Your task to perform on an android device: Go to calendar. Show me events next week Image 0: 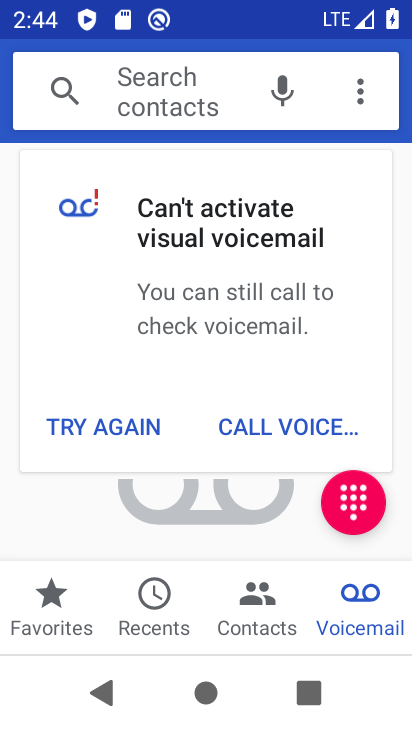
Step 0: drag from (294, 536) to (408, 426)
Your task to perform on an android device: Go to calendar. Show me events next week Image 1: 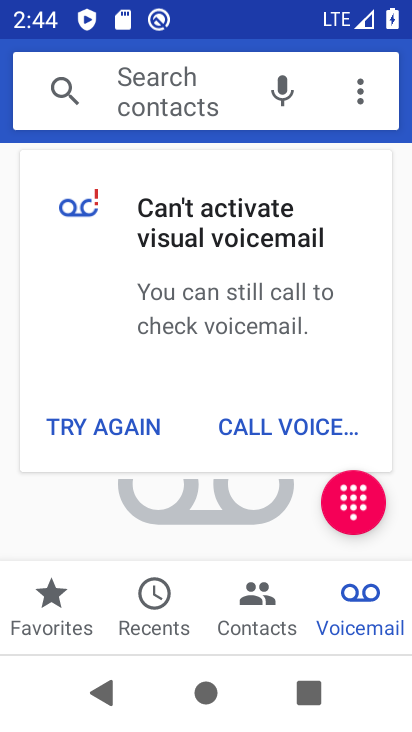
Step 1: press home button
Your task to perform on an android device: Go to calendar. Show me events next week Image 2: 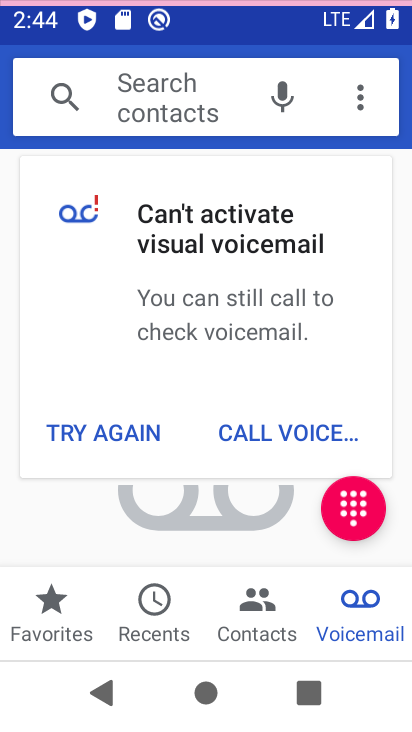
Step 2: click (407, 404)
Your task to perform on an android device: Go to calendar. Show me events next week Image 3: 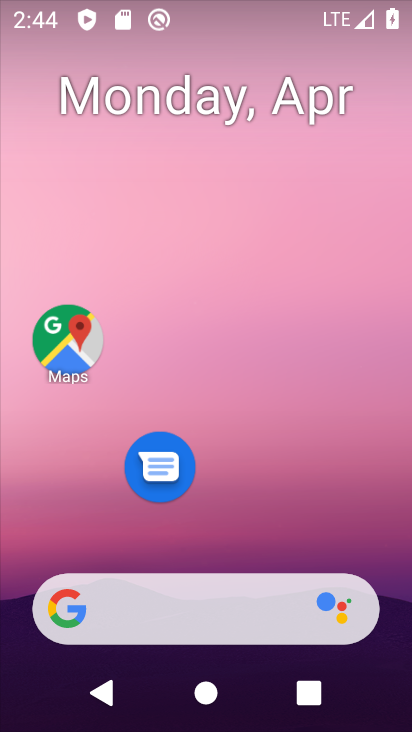
Step 3: drag from (238, 527) to (318, 122)
Your task to perform on an android device: Go to calendar. Show me events next week Image 4: 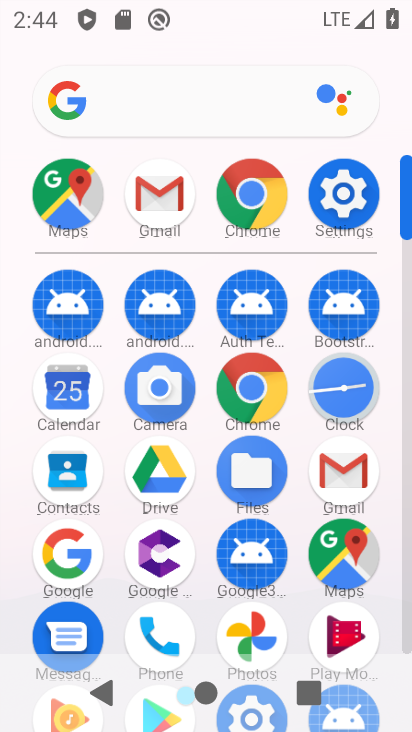
Step 4: click (53, 412)
Your task to perform on an android device: Go to calendar. Show me events next week Image 5: 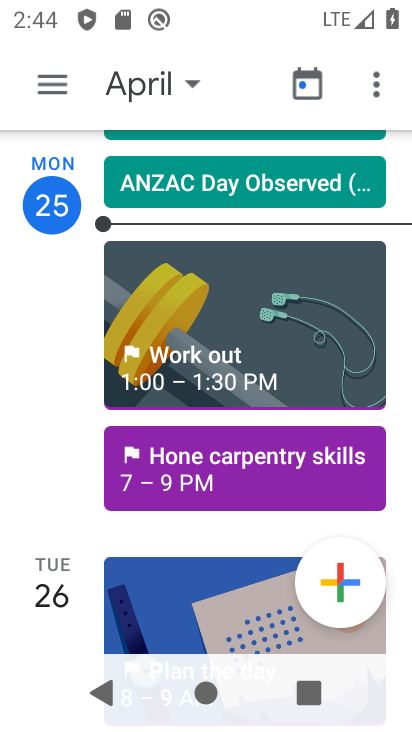
Step 5: click (149, 88)
Your task to perform on an android device: Go to calendar. Show me events next week Image 6: 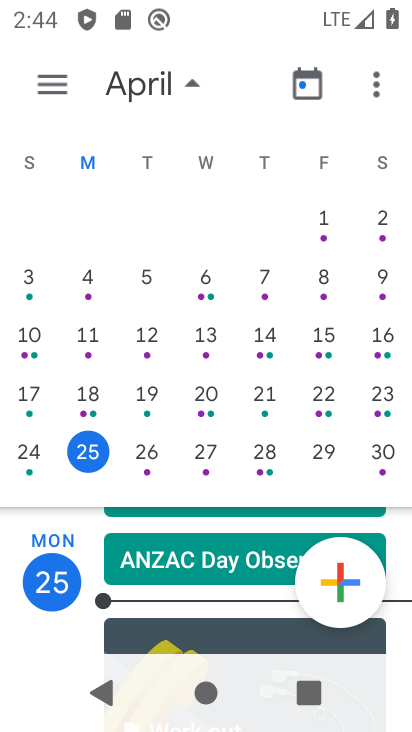
Step 6: drag from (396, 358) to (0, 321)
Your task to perform on an android device: Go to calendar. Show me events next week Image 7: 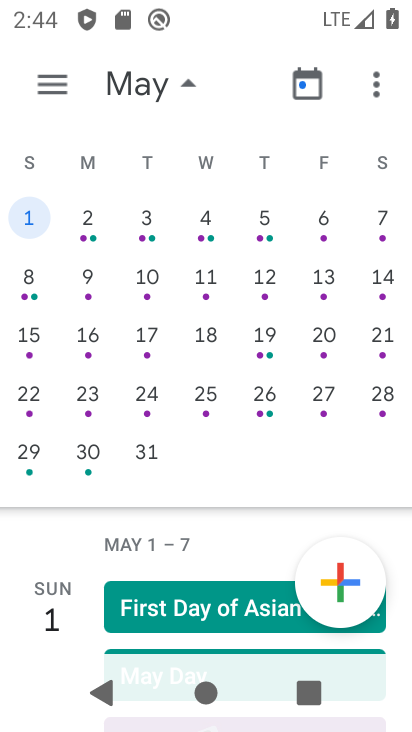
Step 7: click (80, 233)
Your task to perform on an android device: Go to calendar. Show me events next week Image 8: 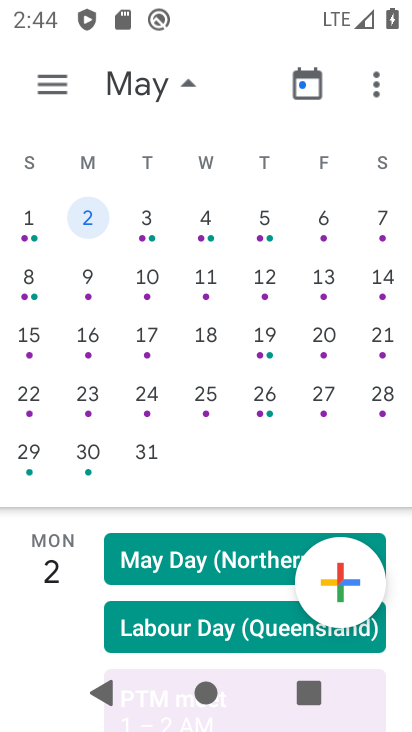
Step 8: click (135, 212)
Your task to perform on an android device: Go to calendar. Show me events next week Image 9: 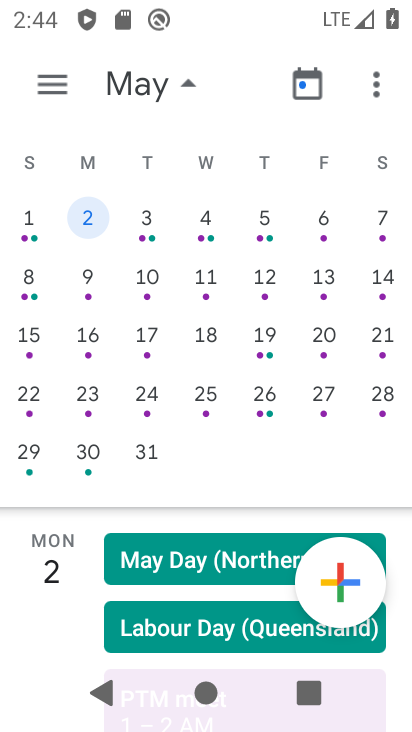
Step 9: click (163, 231)
Your task to perform on an android device: Go to calendar. Show me events next week Image 10: 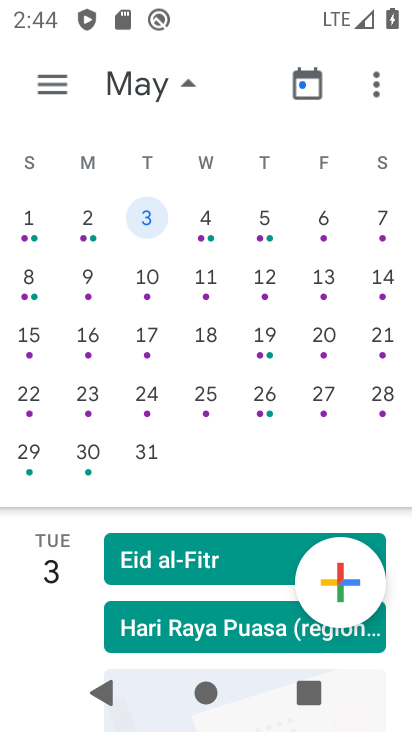
Step 10: click (213, 240)
Your task to perform on an android device: Go to calendar. Show me events next week Image 11: 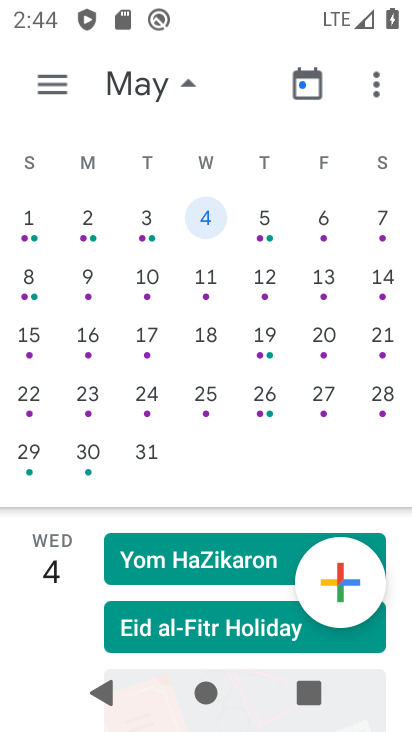
Step 11: click (271, 239)
Your task to perform on an android device: Go to calendar. Show me events next week Image 12: 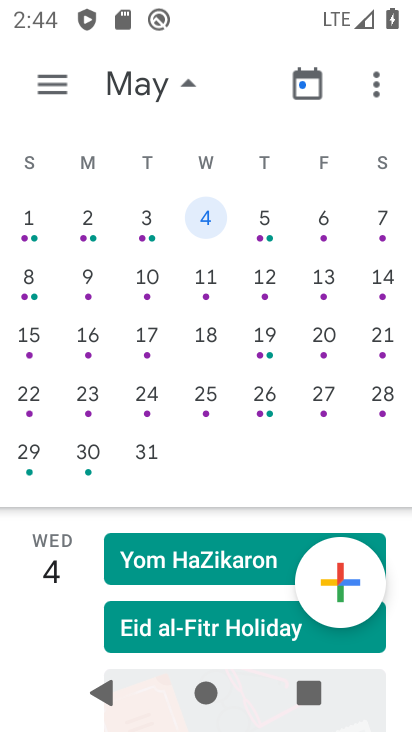
Step 12: click (282, 220)
Your task to perform on an android device: Go to calendar. Show me events next week Image 13: 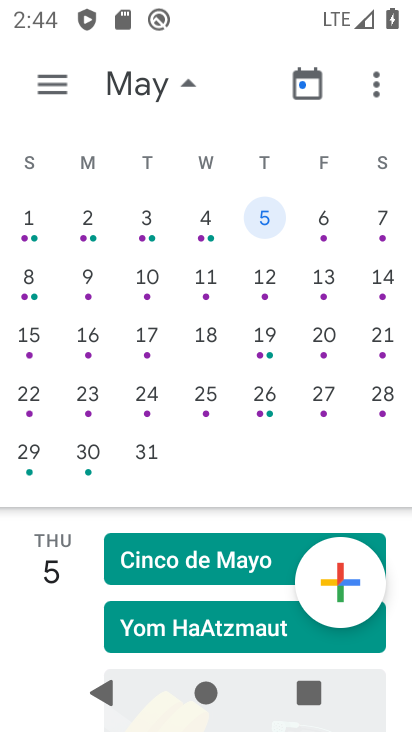
Step 13: click (324, 230)
Your task to perform on an android device: Go to calendar. Show me events next week Image 14: 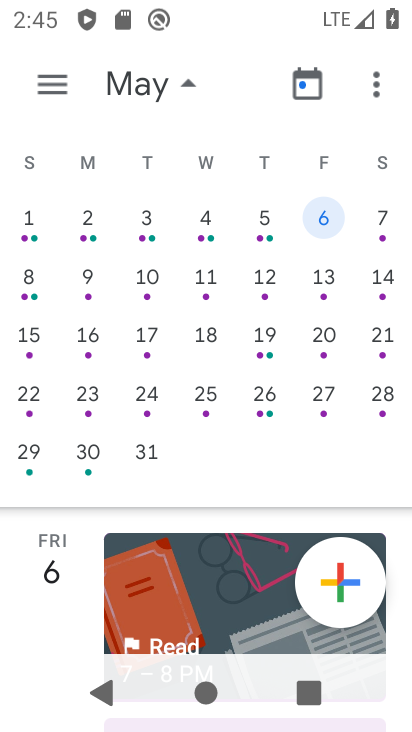
Step 14: click (393, 229)
Your task to perform on an android device: Go to calendar. Show me events next week Image 15: 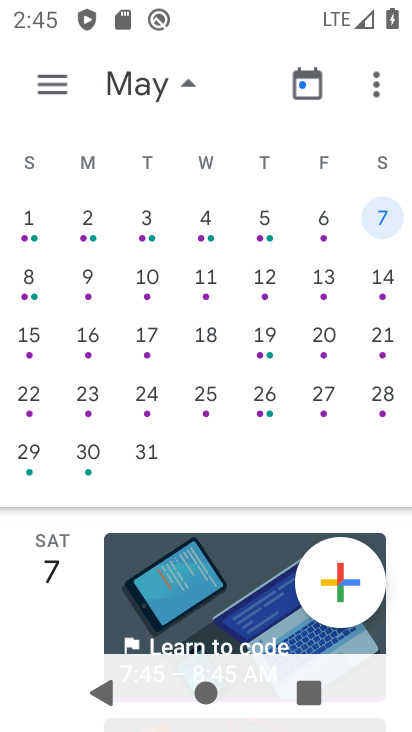
Step 15: task complete